Your task to perform on an android device: Go to notification settings Image 0: 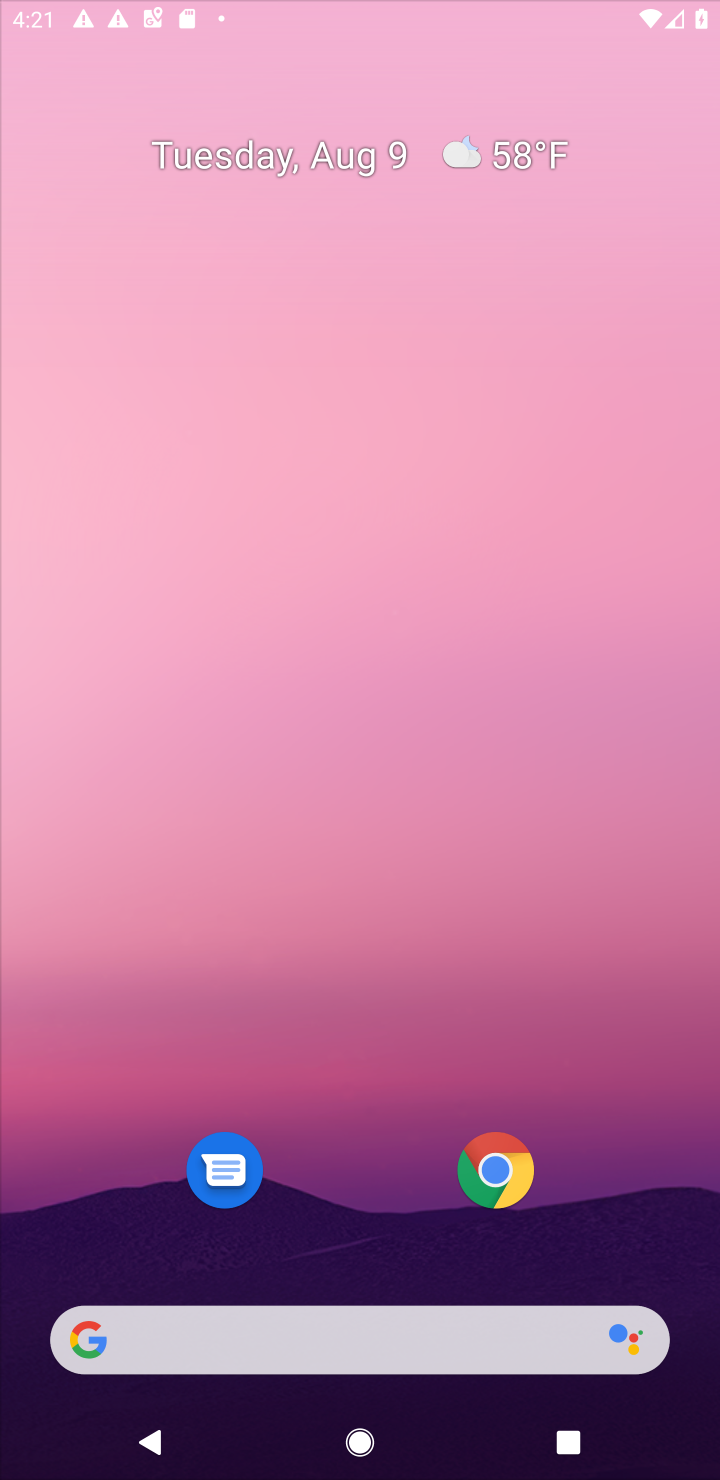
Step 0: press home button
Your task to perform on an android device: Go to notification settings Image 1: 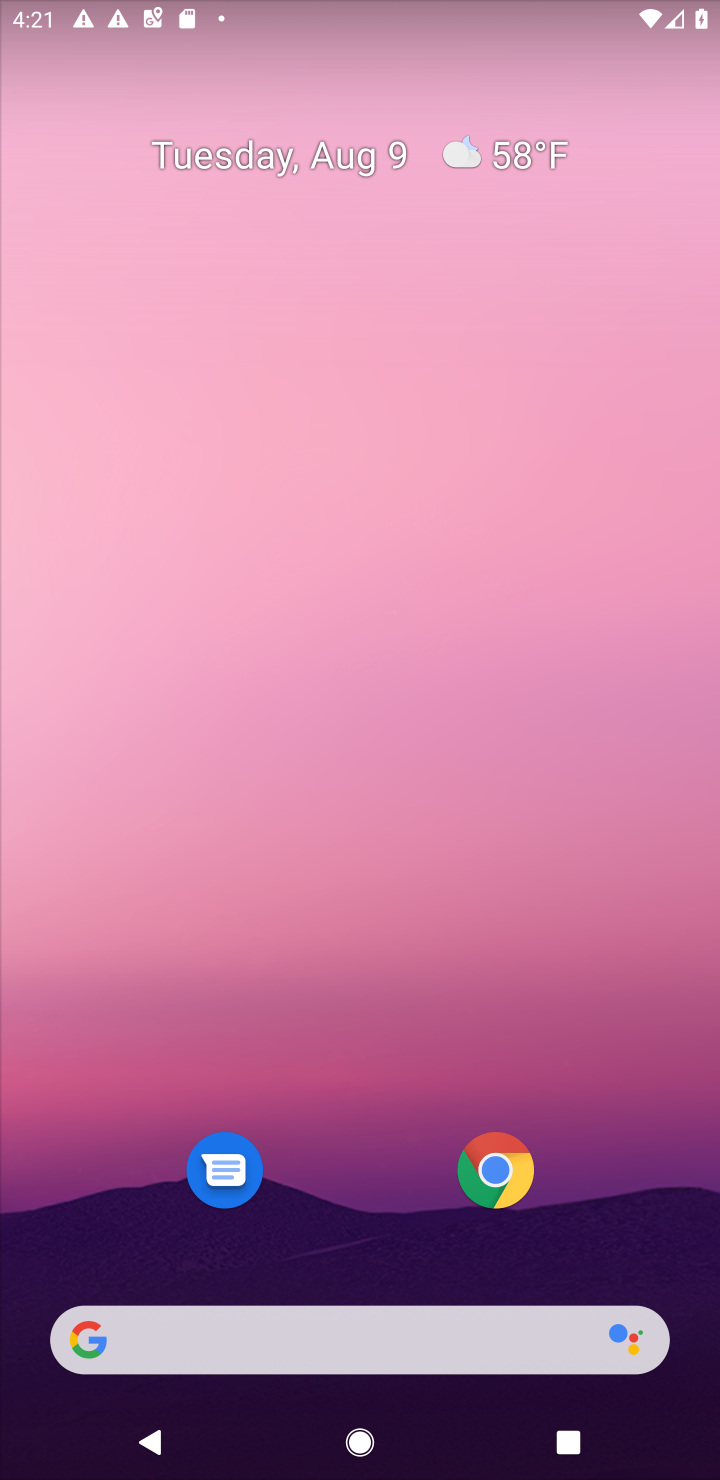
Step 1: drag from (375, 1233) to (355, 196)
Your task to perform on an android device: Go to notification settings Image 2: 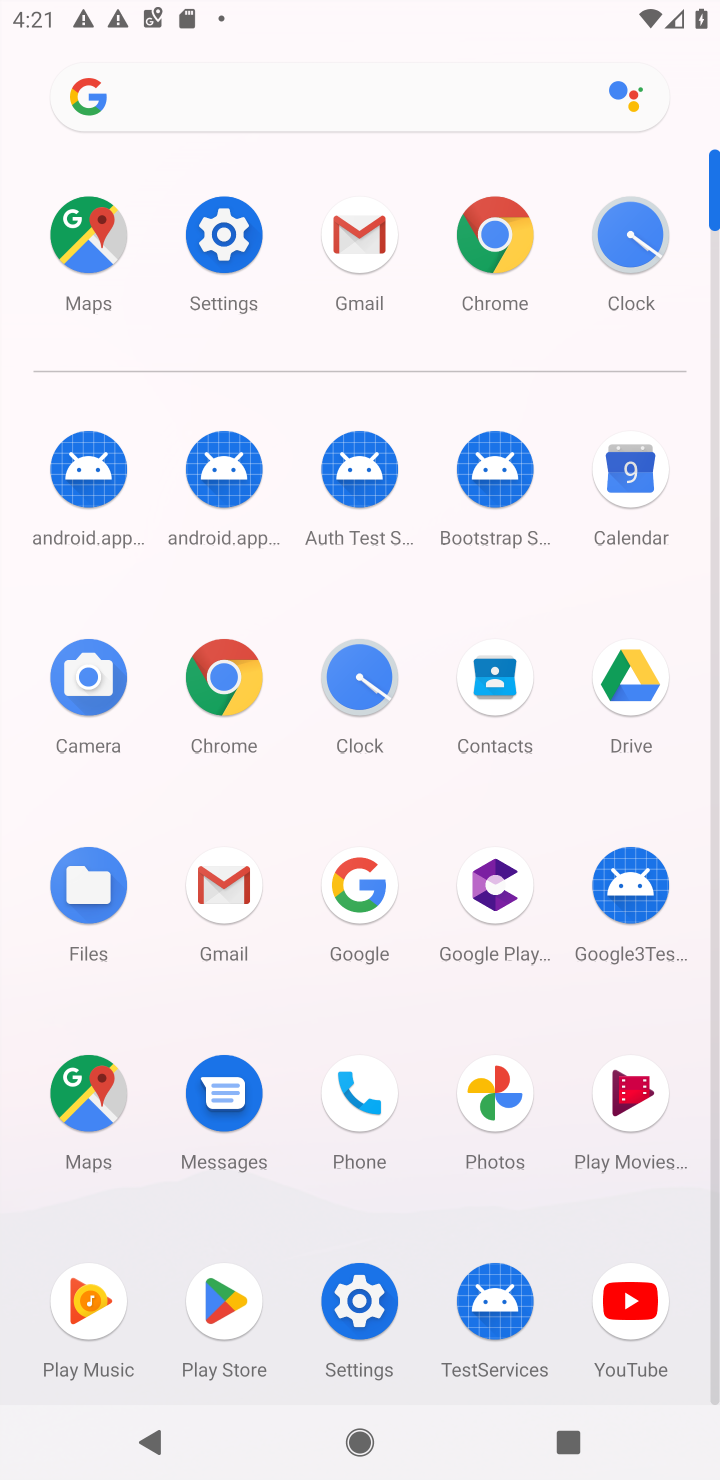
Step 2: click (225, 242)
Your task to perform on an android device: Go to notification settings Image 3: 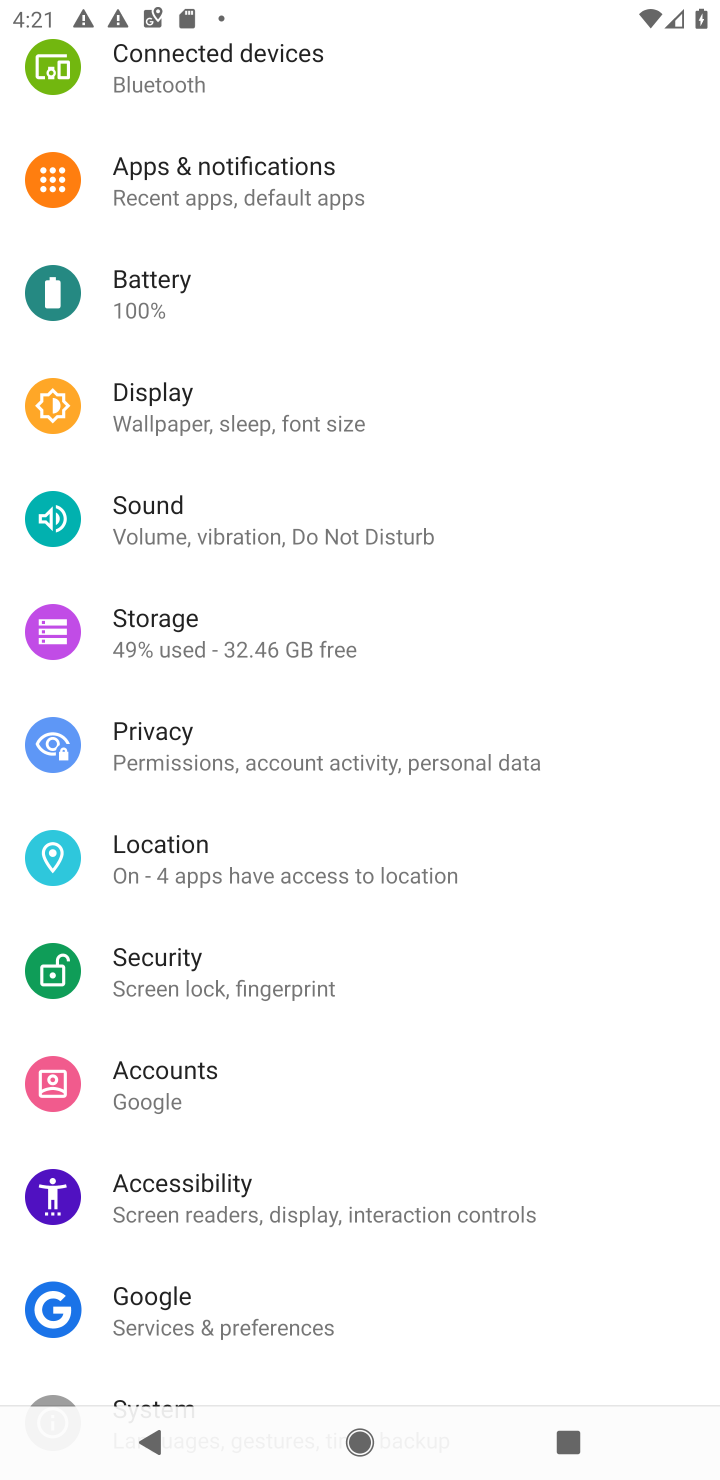
Step 3: click (222, 195)
Your task to perform on an android device: Go to notification settings Image 4: 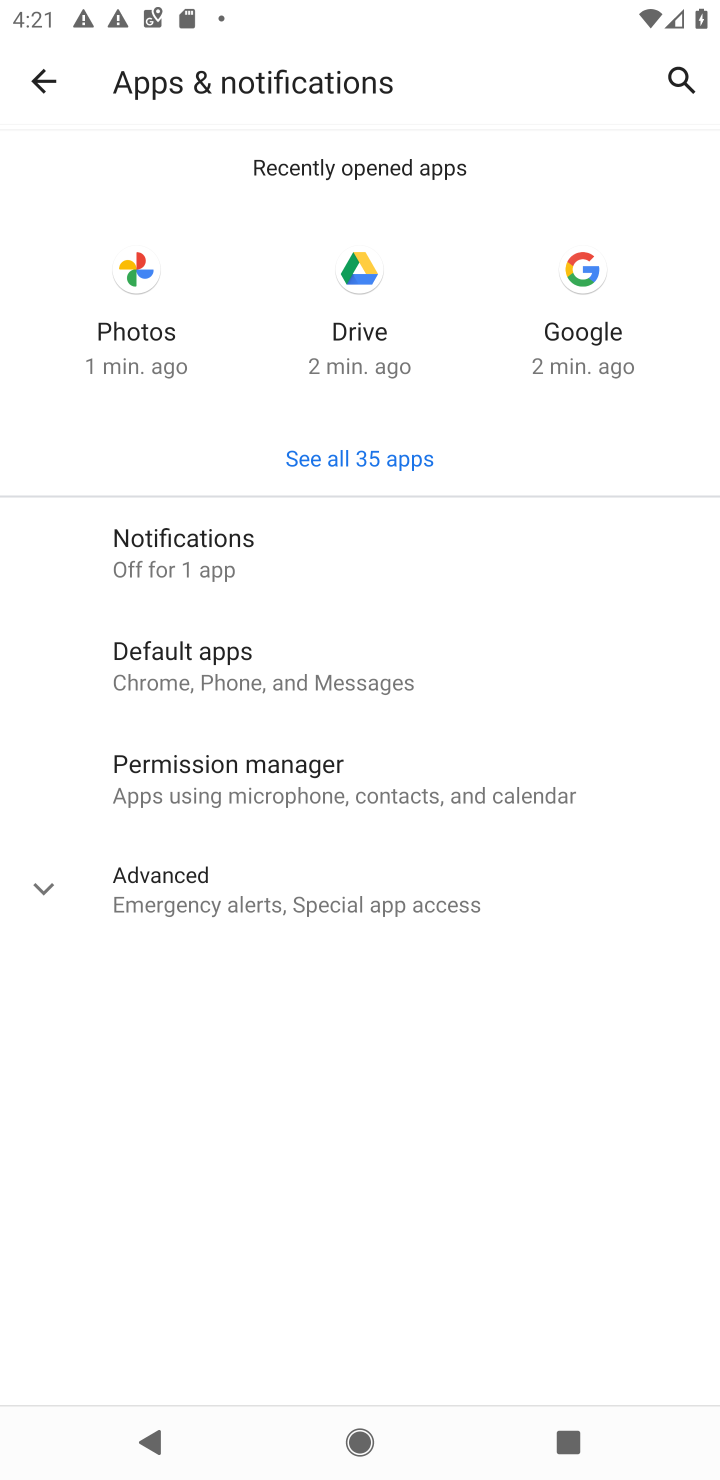
Step 4: task complete